Your task to perform on an android device: open chrome and create a bookmark for the current page Image 0: 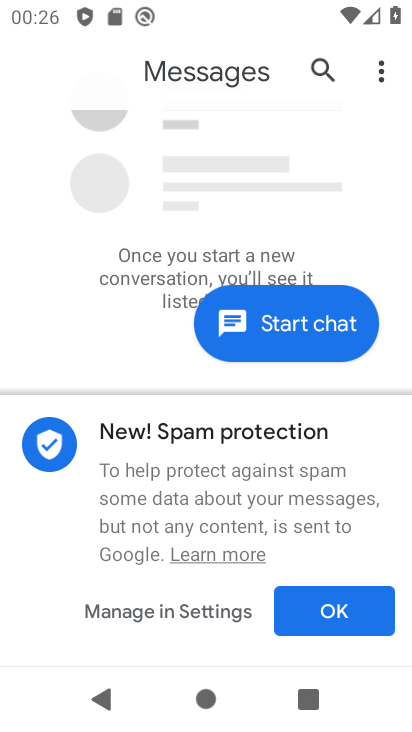
Step 0: press home button
Your task to perform on an android device: open chrome and create a bookmark for the current page Image 1: 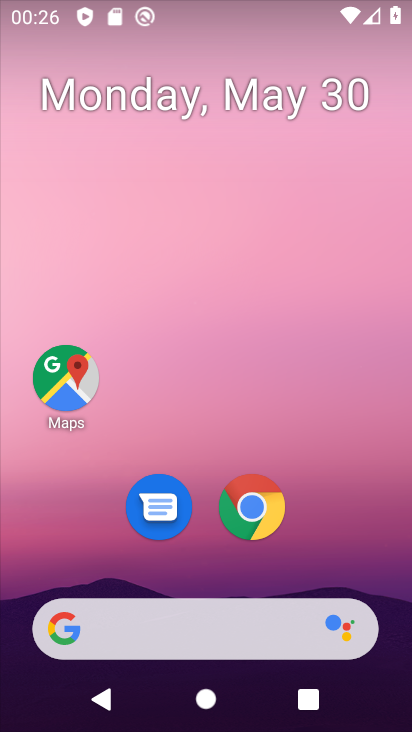
Step 1: click (250, 510)
Your task to perform on an android device: open chrome and create a bookmark for the current page Image 2: 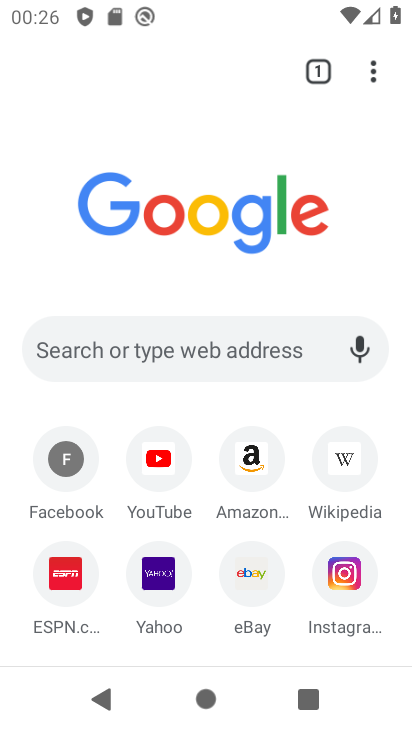
Step 2: click (374, 66)
Your task to perform on an android device: open chrome and create a bookmark for the current page Image 3: 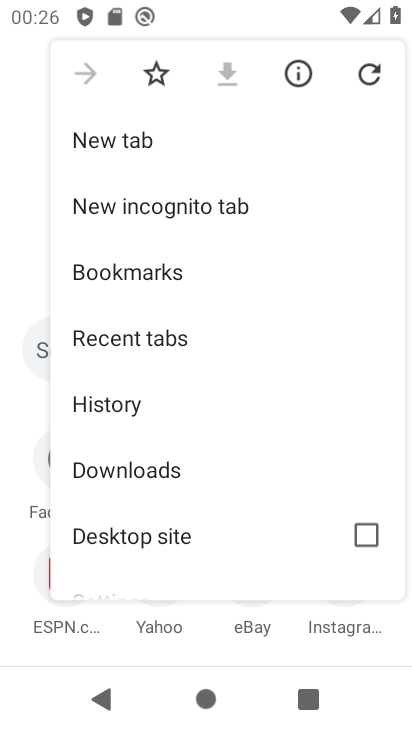
Step 3: click (137, 253)
Your task to perform on an android device: open chrome and create a bookmark for the current page Image 4: 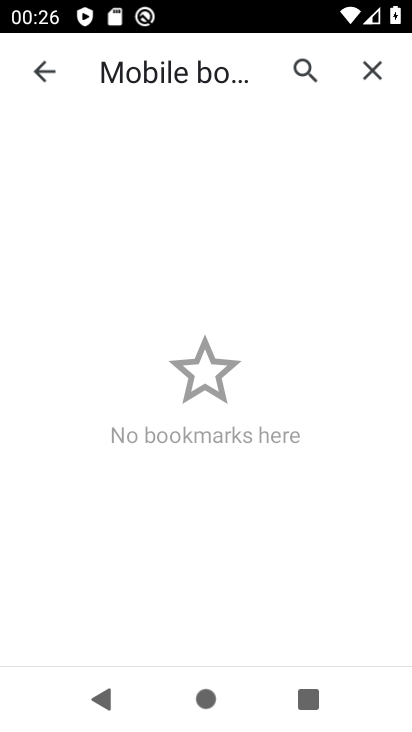
Step 4: task complete